Your task to perform on an android device: Toggle the flashlight Image 0: 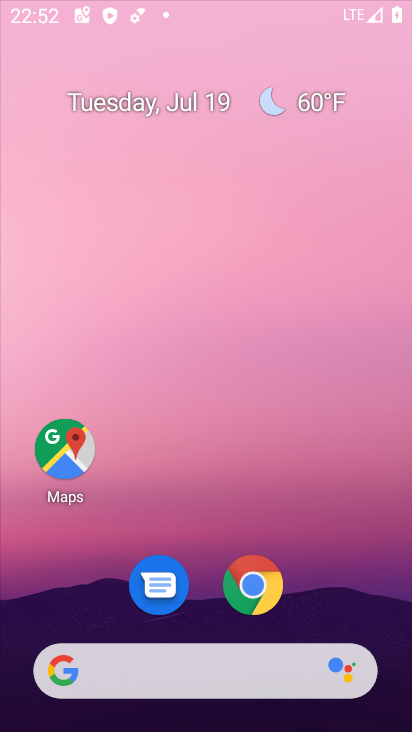
Step 0: click (241, 330)
Your task to perform on an android device: Toggle the flashlight Image 1: 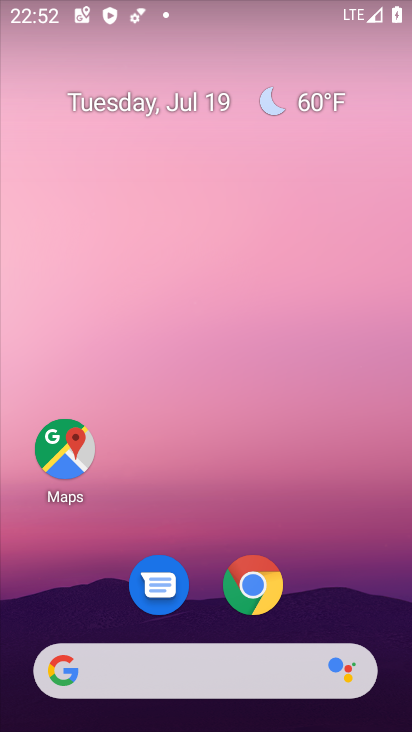
Step 1: drag from (317, 573) to (279, 16)
Your task to perform on an android device: Toggle the flashlight Image 2: 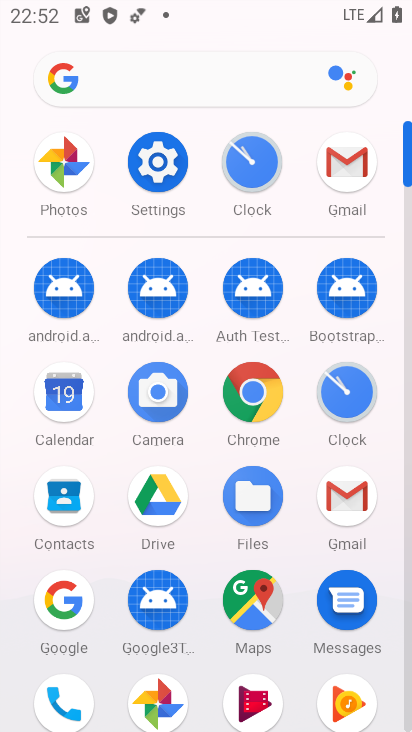
Step 2: click (158, 157)
Your task to perform on an android device: Toggle the flashlight Image 3: 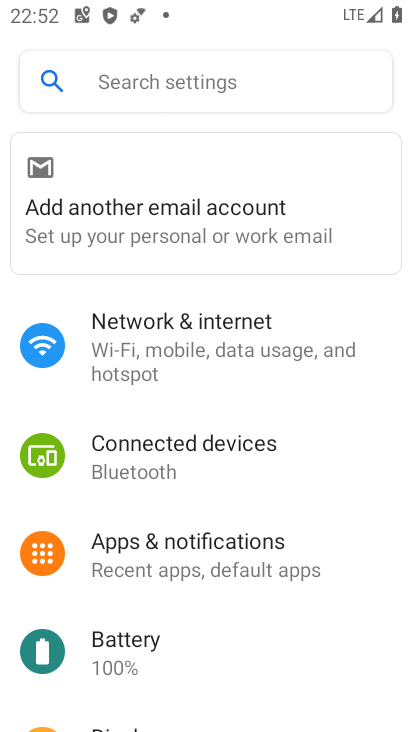
Step 3: click (180, 85)
Your task to perform on an android device: Toggle the flashlight Image 4: 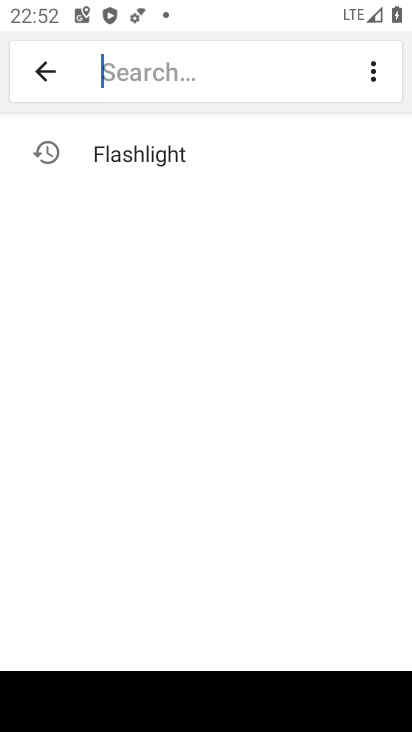
Step 4: click (161, 151)
Your task to perform on an android device: Toggle the flashlight Image 5: 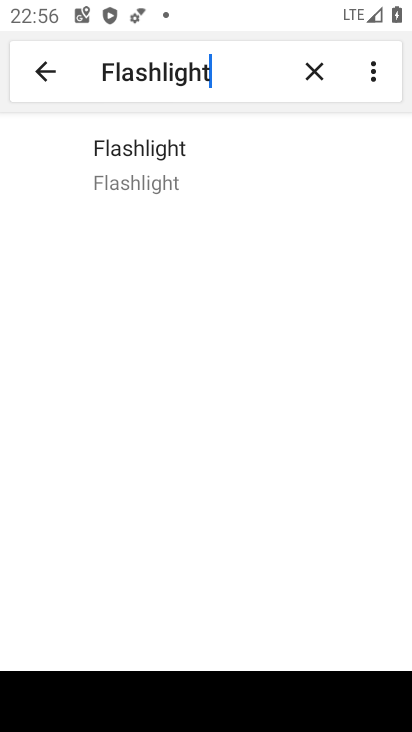
Step 5: task complete